Your task to perform on an android device: Go to internet settings Image 0: 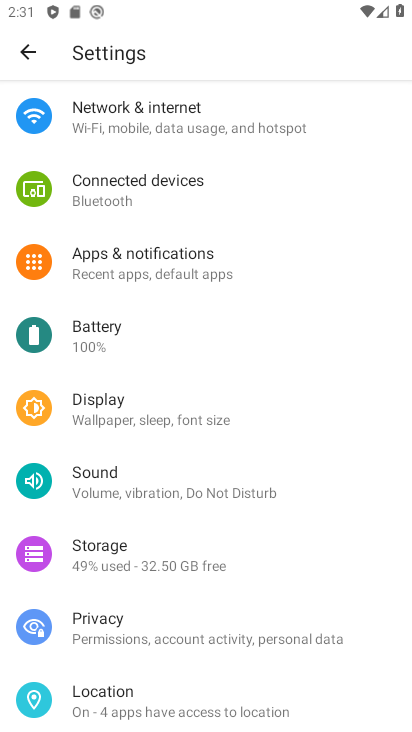
Step 0: drag from (215, 153) to (225, 412)
Your task to perform on an android device: Go to internet settings Image 1: 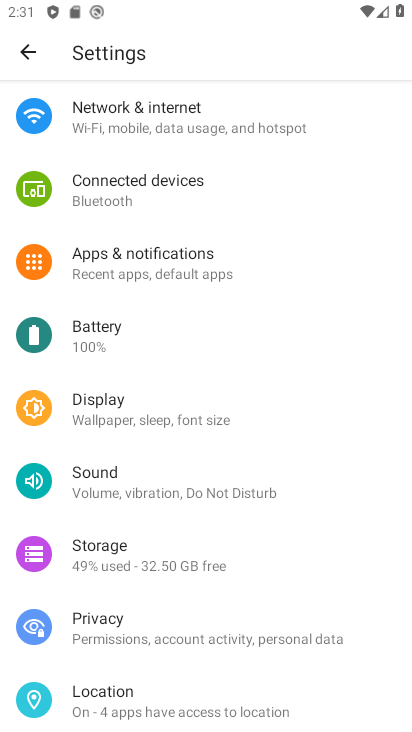
Step 1: click (130, 124)
Your task to perform on an android device: Go to internet settings Image 2: 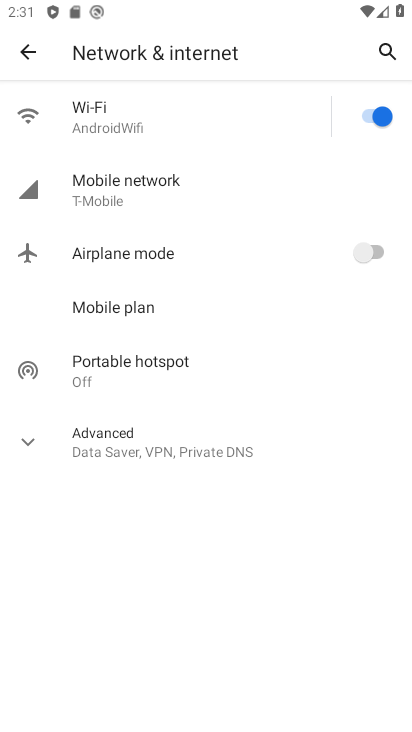
Step 2: task complete